Your task to perform on an android device: Go to accessibility settings Image 0: 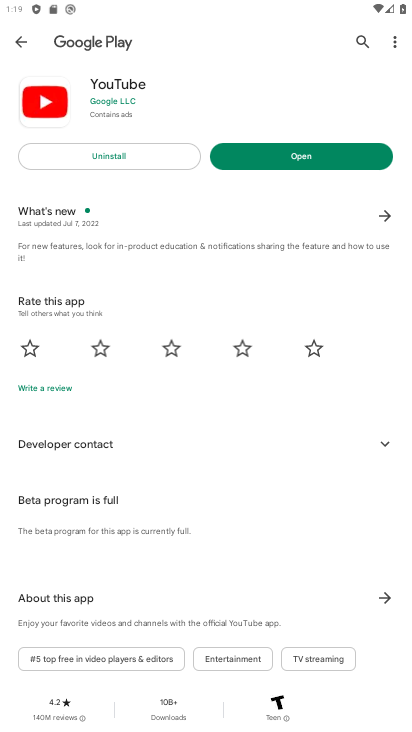
Step 0: press home button
Your task to perform on an android device: Go to accessibility settings Image 1: 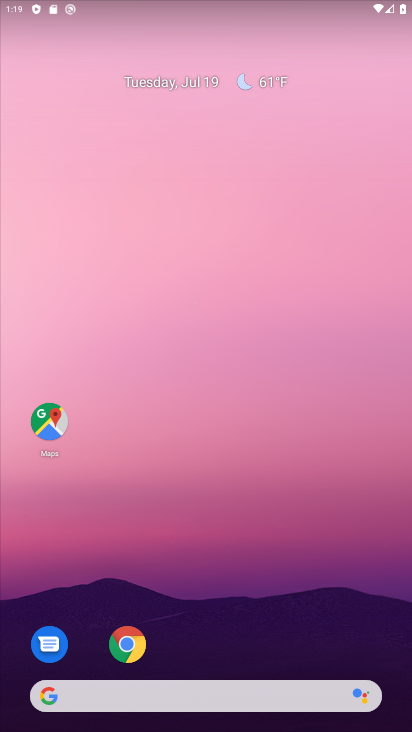
Step 1: drag from (396, 714) to (291, 127)
Your task to perform on an android device: Go to accessibility settings Image 2: 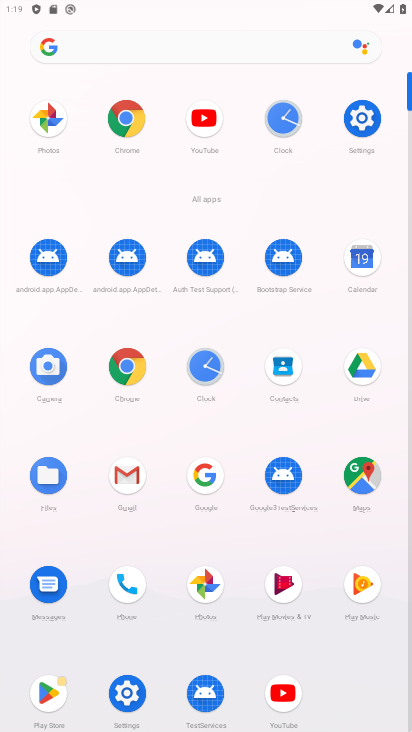
Step 2: click (365, 111)
Your task to perform on an android device: Go to accessibility settings Image 3: 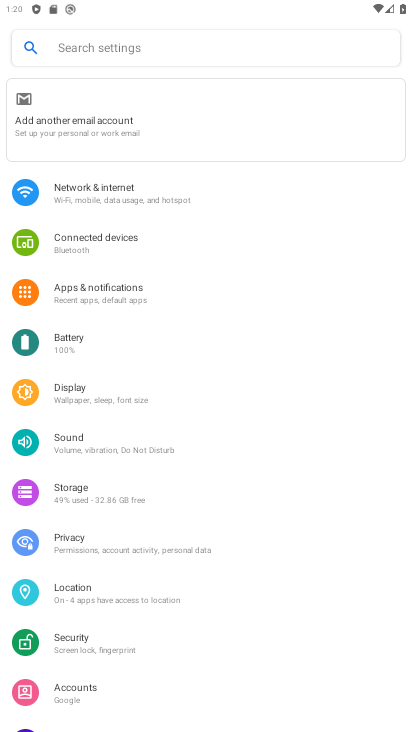
Step 3: drag from (209, 659) to (252, 321)
Your task to perform on an android device: Go to accessibility settings Image 4: 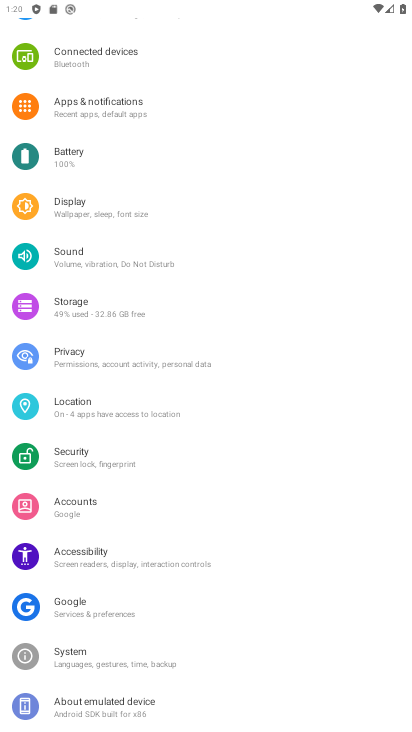
Step 4: click (87, 554)
Your task to perform on an android device: Go to accessibility settings Image 5: 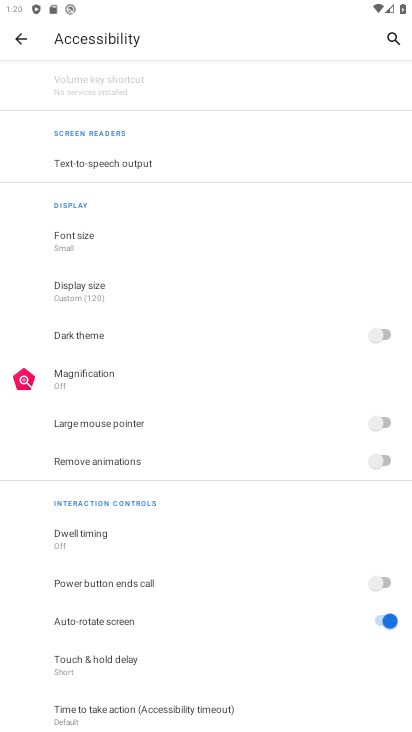
Step 5: task complete